Your task to perform on an android device: empty trash in the gmail app Image 0: 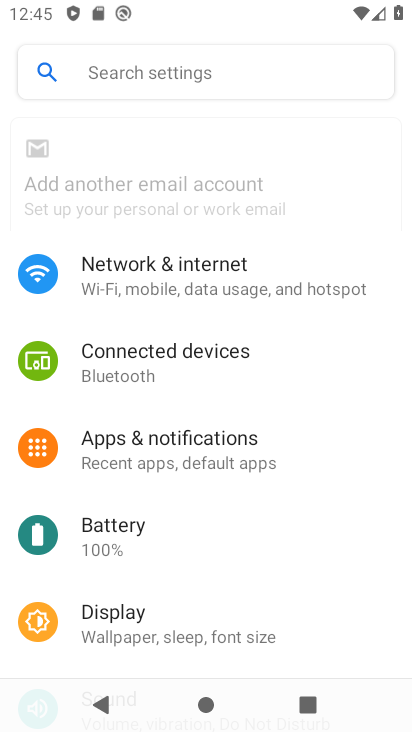
Step 0: drag from (222, 591) to (226, 415)
Your task to perform on an android device: empty trash in the gmail app Image 1: 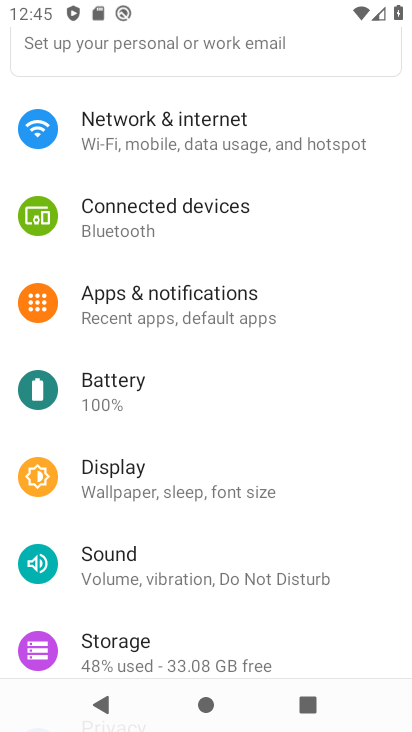
Step 1: press home button
Your task to perform on an android device: empty trash in the gmail app Image 2: 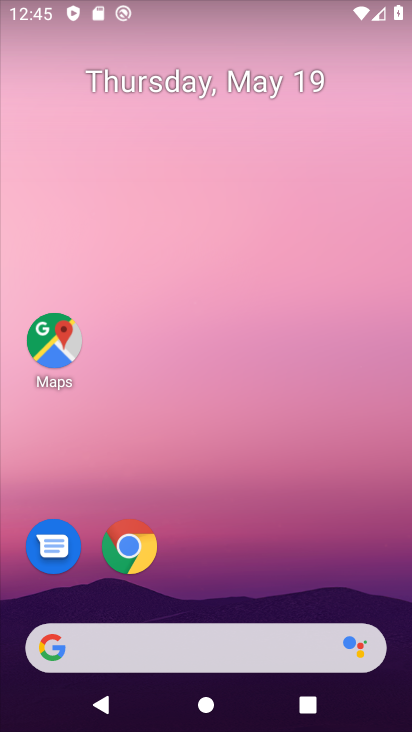
Step 2: drag from (215, 591) to (220, 78)
Your task to perform on an android device: empty trash in the gmail app Image 3: 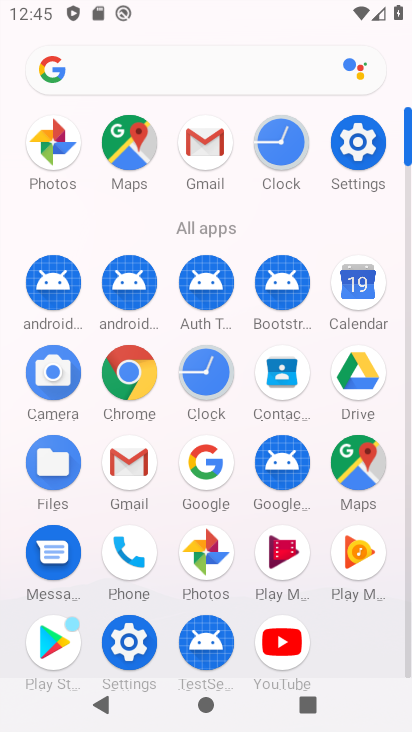
Step 3: click (138, 462)
Your task to perform on an android device: empty trash in the gmail app Image 4: 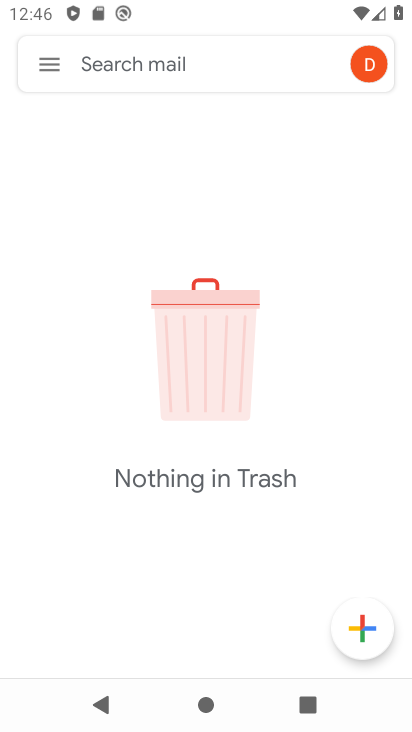
Step 4: task complete